Your task to perform on an android device: Open Google Maps and go to "Timeline" Image 0: 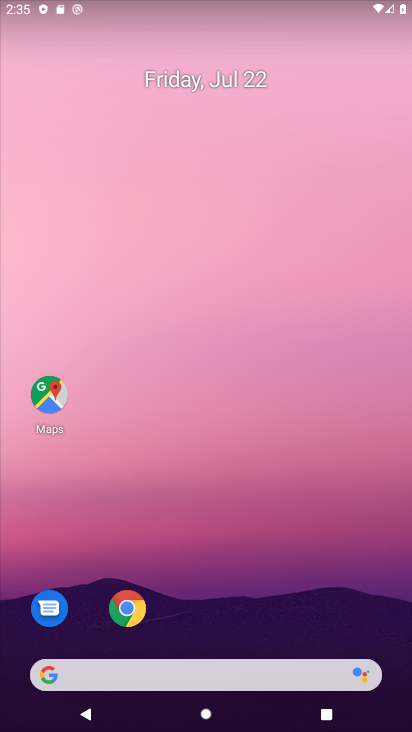
Step 0: click (53, 390)
Your task to perform on an android device: Open Google Maps and go to "Timeline" Image 1: 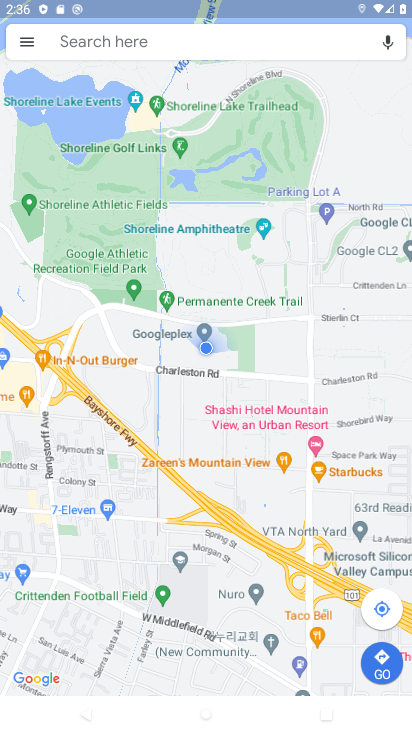
Step 1: click (33, 47)
Your task to perform on an android device: Open Google Maps and go to "Timeline" Image 2: 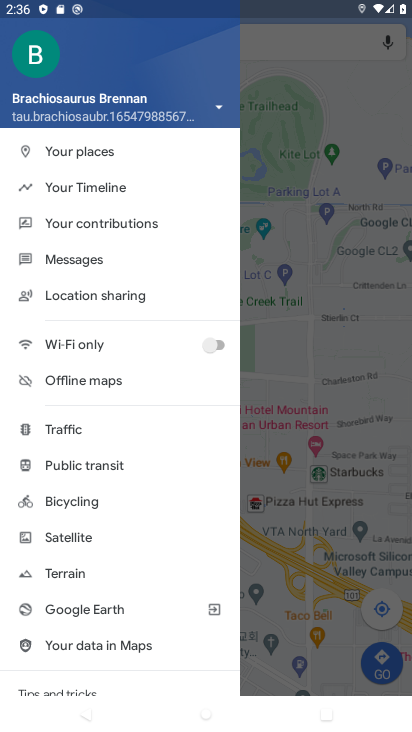
Step 2: click (125, 181)
Your task to perform on an android device: Open Google Maps and go to "Timeline" Image 3: 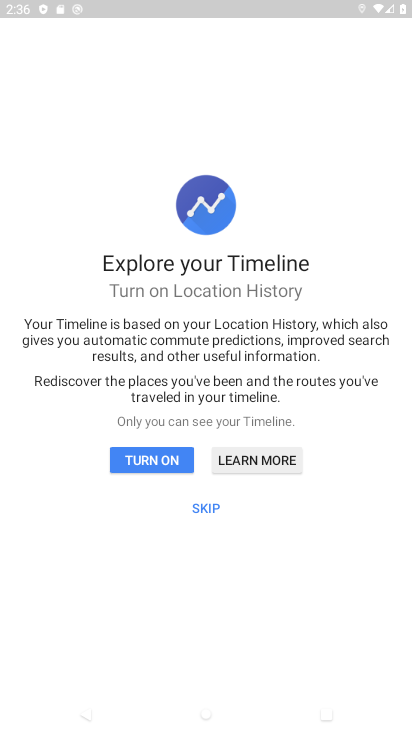
Step 3: click (202, 510)
Your task to perform on an android device: Open Google Maps and go to "Timeline" Image 4: 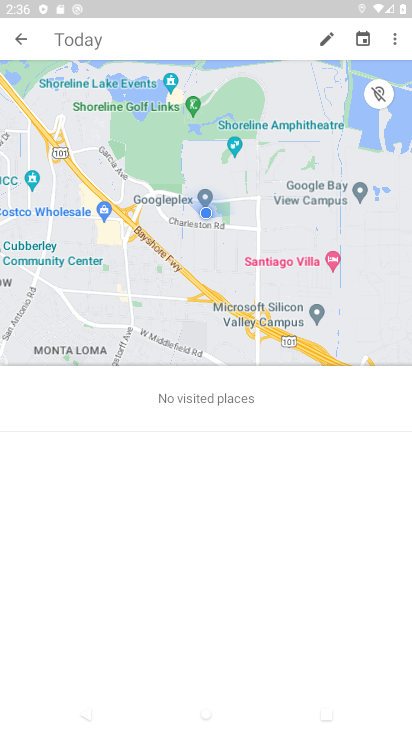
Step 4: click (22, 29)
Your task to perform on an android device: Open Google Maps and go to "Timeline" Image 5: 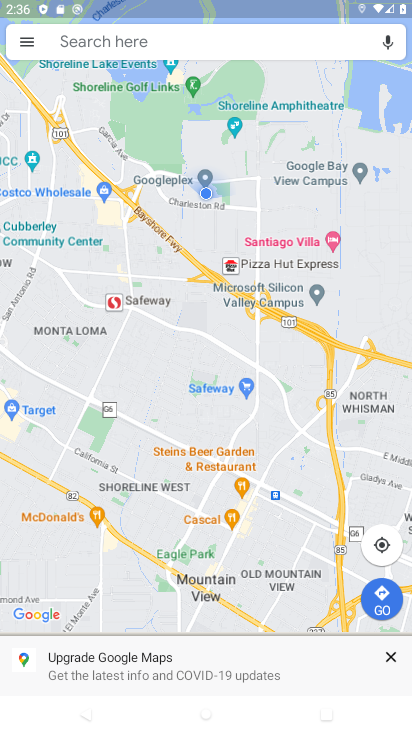
Step 5: click (28, 36)
Your task to perform on an android device: Open Google Maps and go to "Timeline" Image 6: 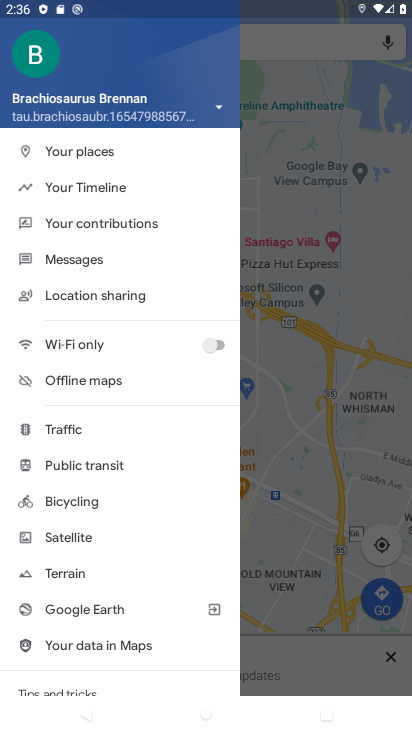
Step 6: click (98, 187)
Your task to perform on an android device: Open Google Maps and go to "Timeline" Image 7: 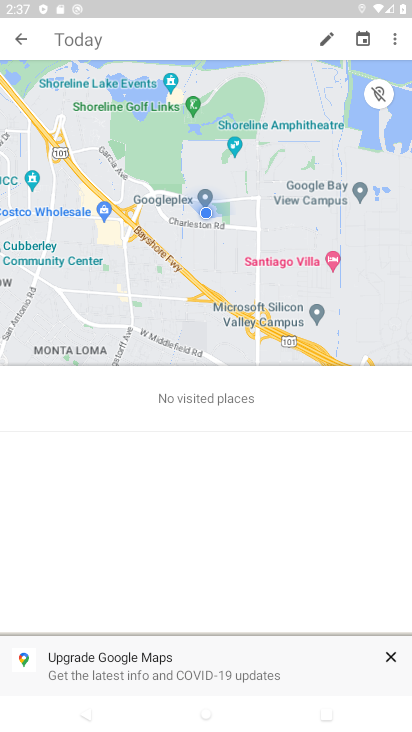
Step 7: task complete